Your task to perform on an android device: Open settings on Google Maps Image 0: 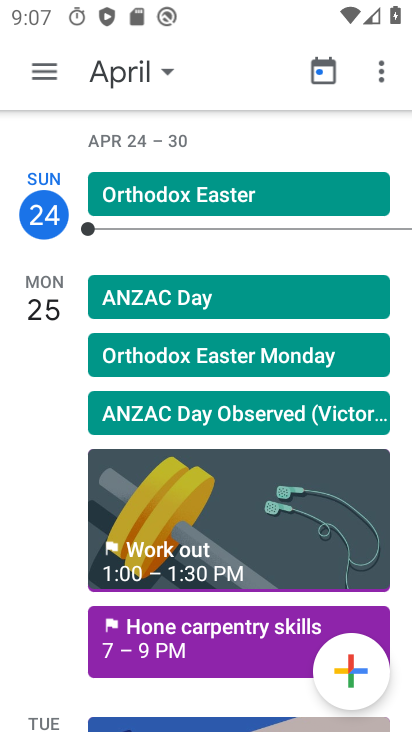
Step 0: press home button
Your task to perform on an android device: Open settings on Google Maps Image 1: 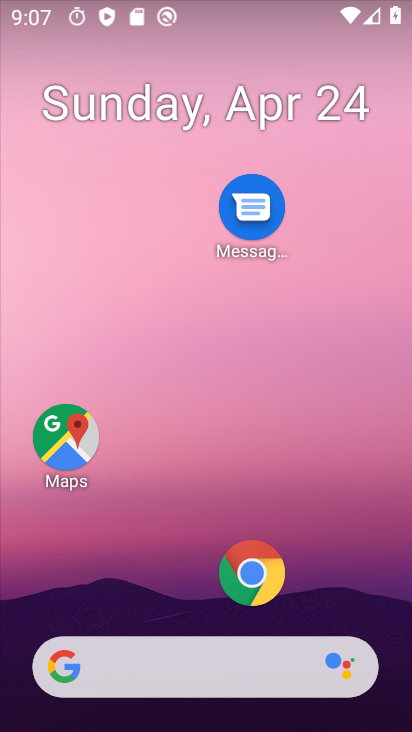
Step 1: drag from (150, 549) to (174, 0)
Your task to perform on an android device: Open settings on Google Maps Image 2: 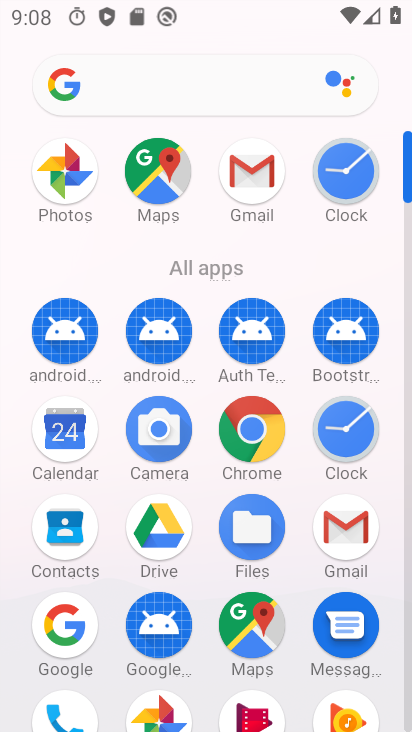
Step 2: click (245, 633)
Your task to perform on an android device: Open settings on Google Maps Image 3: 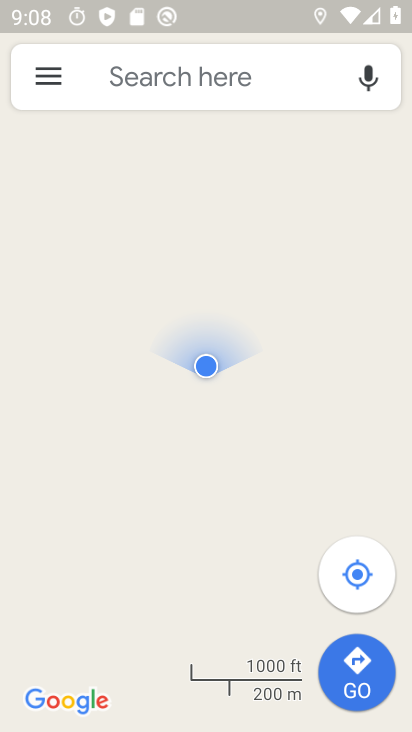
Step 3: click (46, 77)
Your task to perform on an android device: Open settings on Google Maps Image 4: 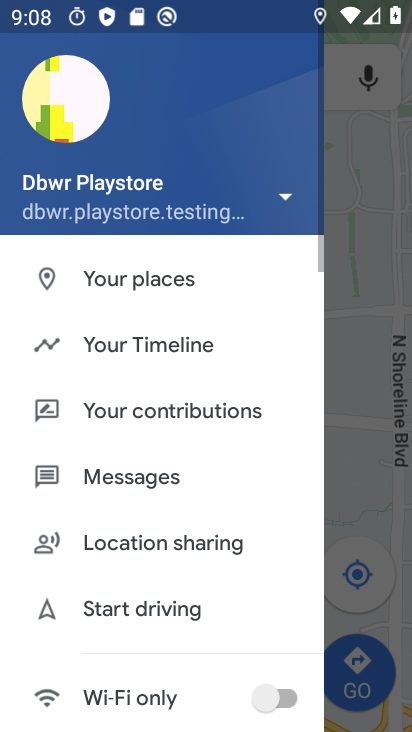
Step 4: drag from (91, 550) to (175, 85)
Your task to perform on an android device: Open settings on Google Maps Image 5: 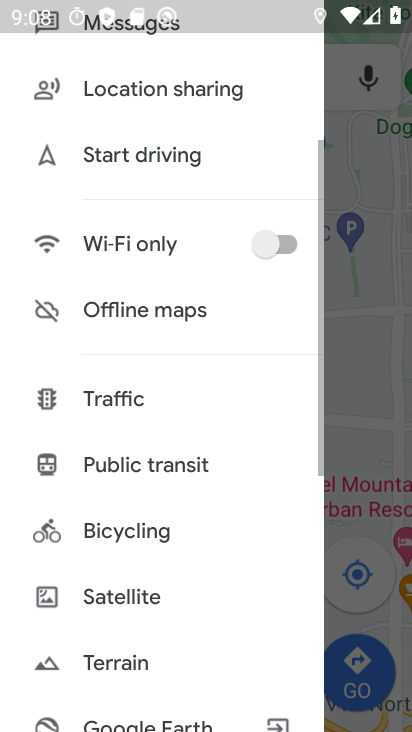
Step 5: drag from (112, 613) to (235, 77)
Your task to perform on an android device: Open settings on Google Maps Image 6: 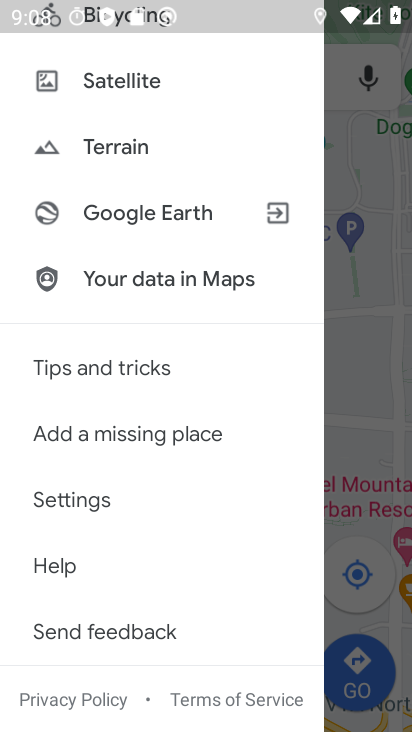
Step 6: click (65, 510)
Your task to perform on an android device: Open settings on Google Maps Image 7: 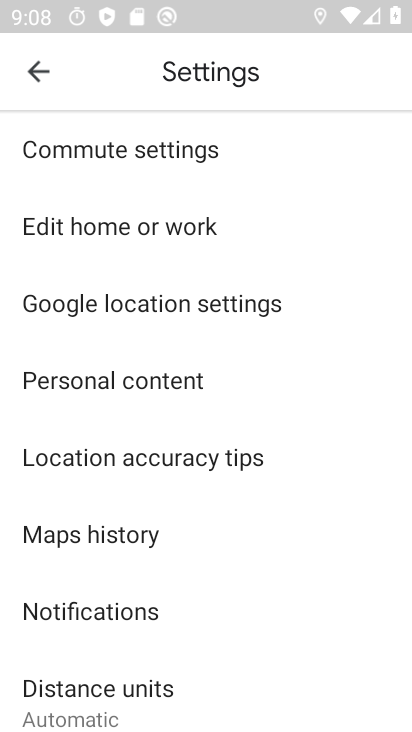
Step 7: task complete